Your task to perform on an android device: change the clock display to analog Image 0: 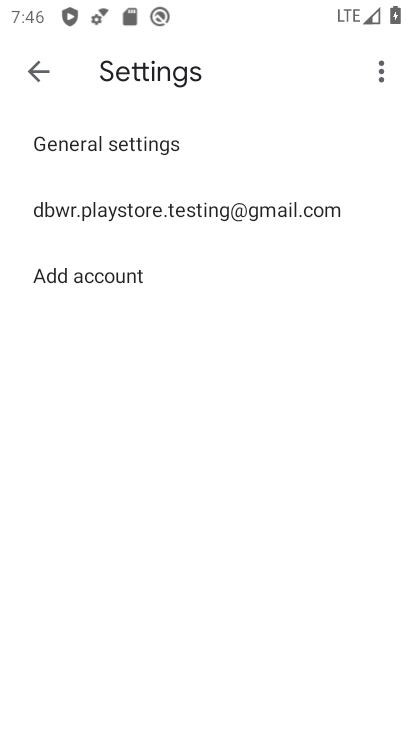
Step 0: press home button
Your task to perform on an android device: change the clock display to analog Image 1: 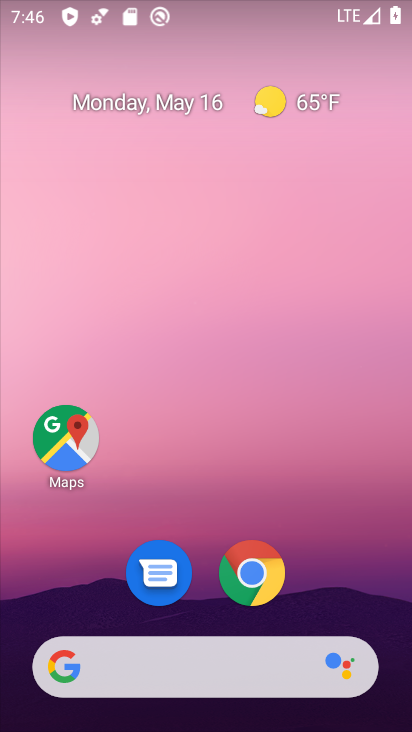
Step 1: drag from (331, 605) to (331, 69)
Your task to perform on an android device: change the clock display to analog Image 2: 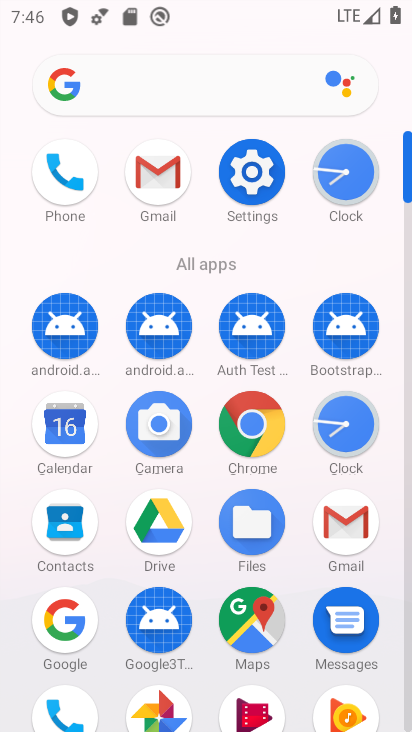
Step 2: click (346, 436)
Your task to perform on an android device: change the clock display to analog Image 3: 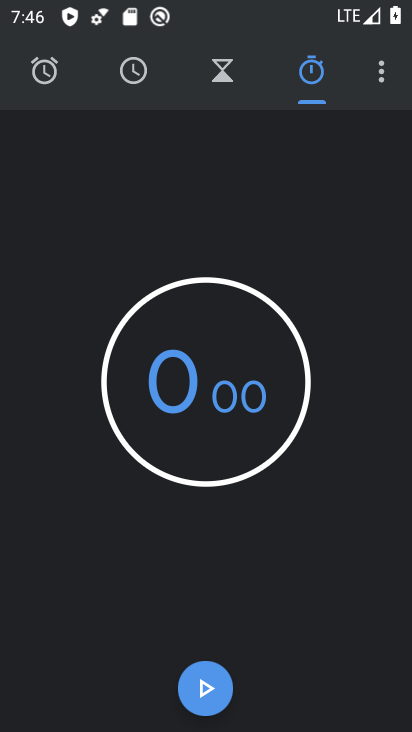
Step 3: click (390, 81)
Your task to perform on an android device: change the clock display to analog Image 4: 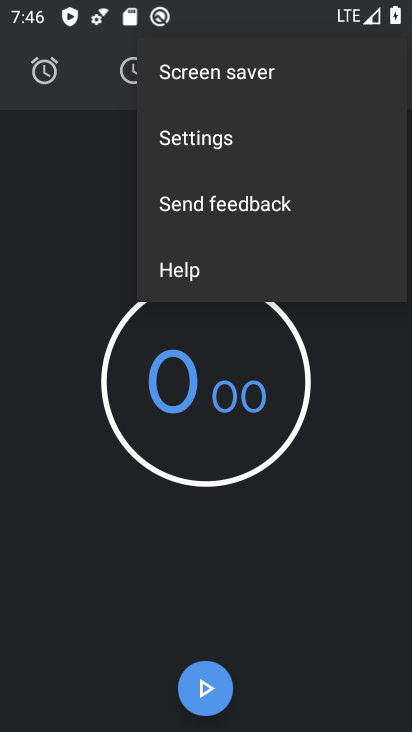
Step 4: click (304, 137)
Your task to perform on an android device: change the clock display to analog Image 5: 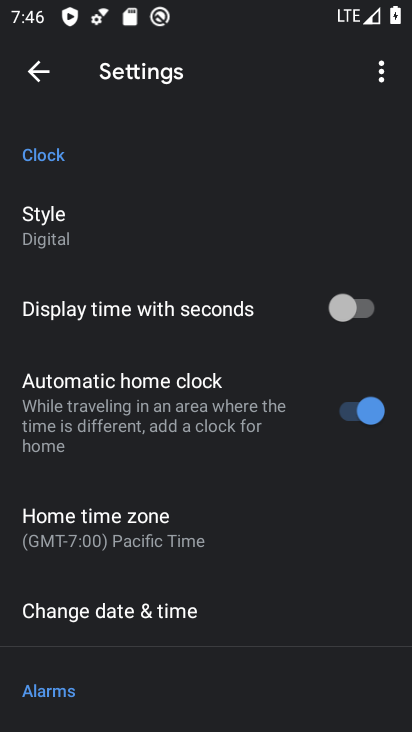
Step 5: click (115, 230)
Your task to perform on an android device: change the clock display to analog Image 6: 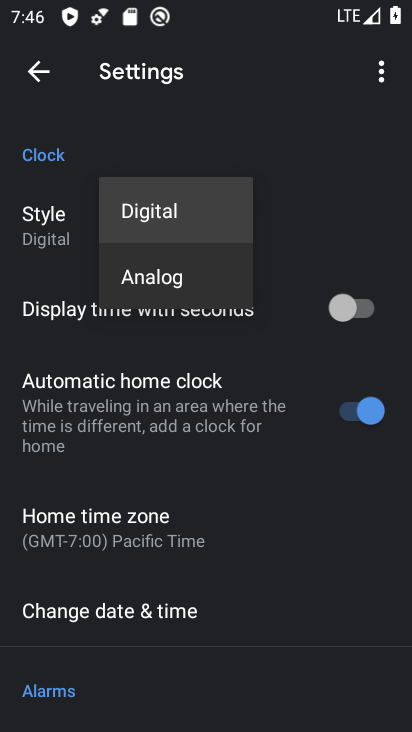
Step 6: click (136, 282)
Your task to perform on an android device: change the clock display to analog Image 7: 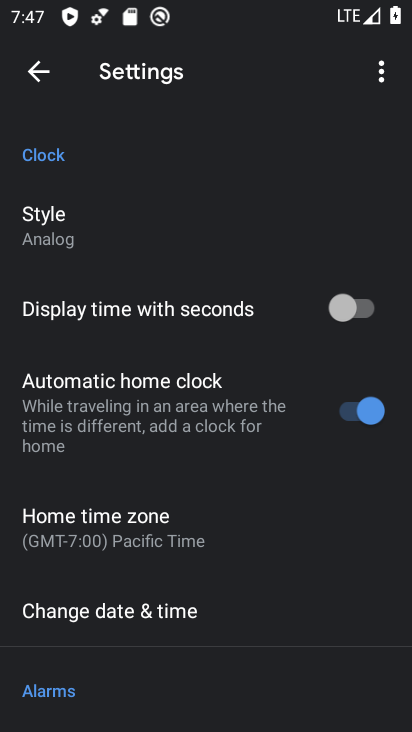
Step 7: task complete